Your task to perform on an android device: Open calendar and show me the fourth week of next month Image 0: 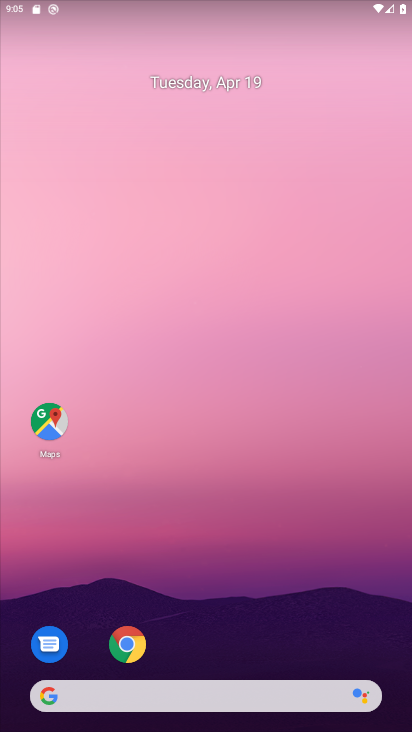
Step 0: drag from (214, 633) to (219, 111)
Your task to perform on an android device: Open calendar and show me the fourth week of next month Image 1: 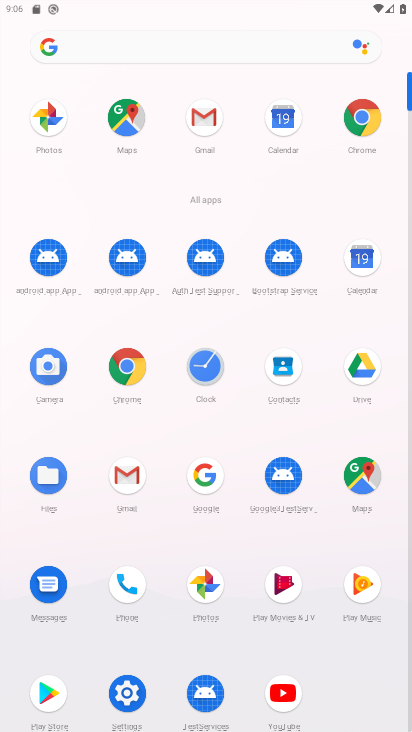
Step 1: click (353, 266)
Your task to perform on an android device: Open calendar and show me the fourth week of next month Image 2: 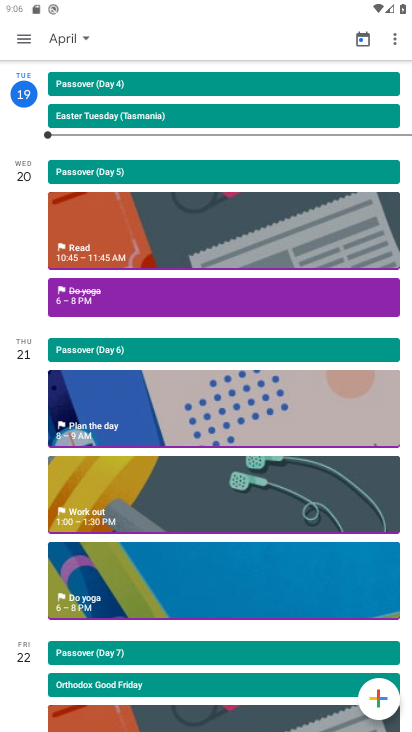
Step 2: click (61, 45)
Your task to perform on an android device: Open calendar and show me the fourth week of next month Image 3: 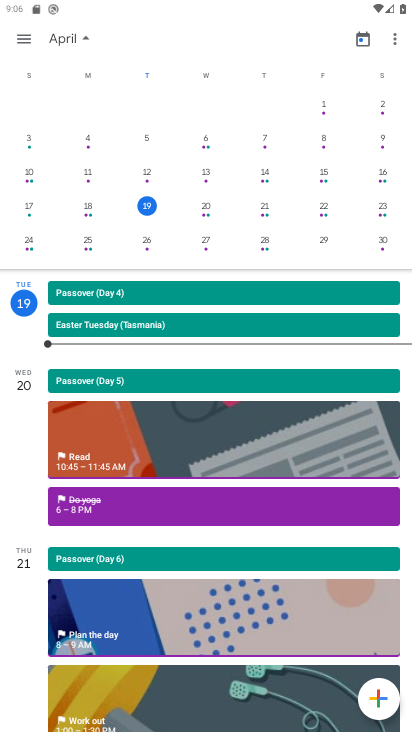
Step 3: drag from (340, 193) to (5, 148)
Your task to perform on an android device: Open calendar and show me the fourth week of next month Image 4: 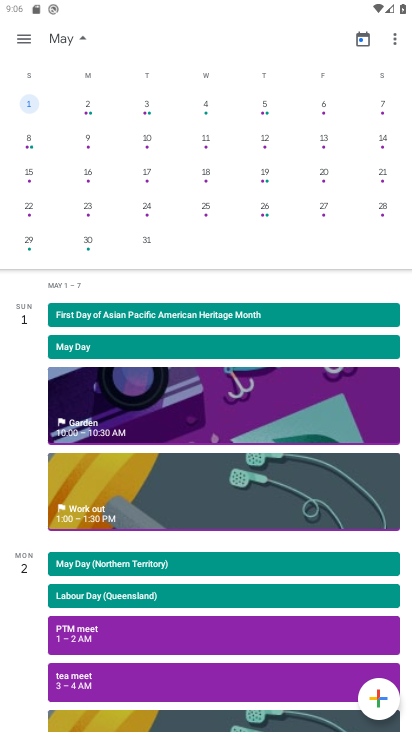
Step 4: click (262, 205)
Your task to perform on an android device: Open calendar and show me the fourth week of next month Image 5: 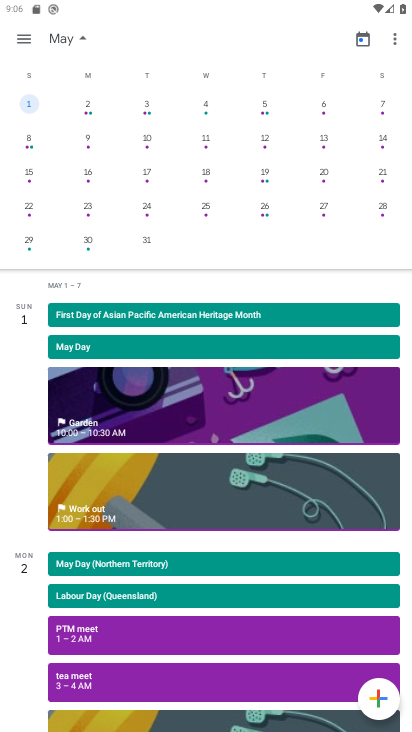
Step 5: click (265, 210)
Your task to perform on an android device: Open calendar and show me the fourth week of next month Image 6: 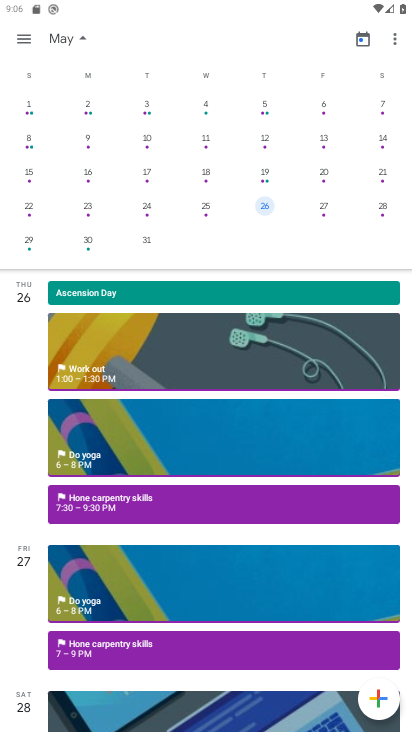
Step 6: task complete